Your task to perform on an android device: refresh tabs in the chrome app Image 0: 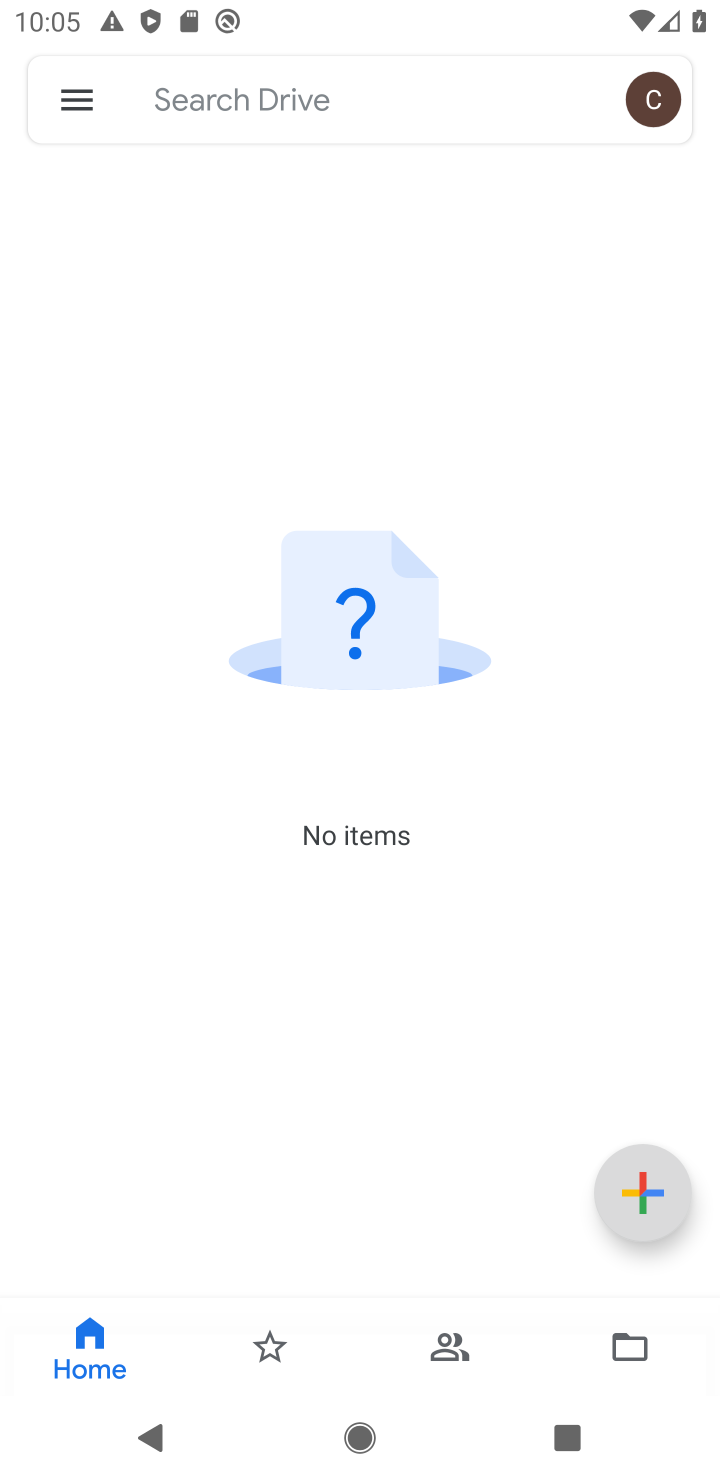
Step 0: press home button
Your task to perform on an android device: refresh tabs in the chrome app Image 1: 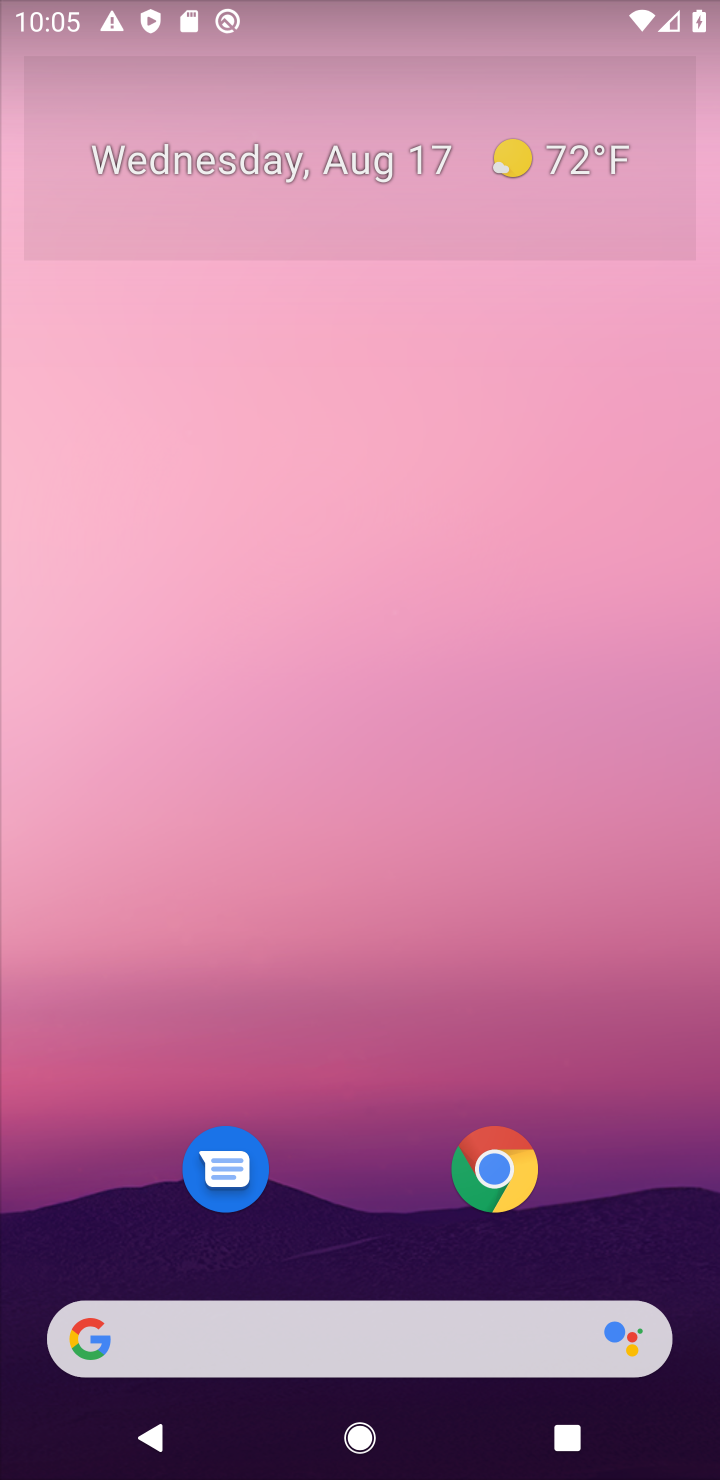
Step 1: drag from (408, 1077) to (337, 318)
Your task to perform on an android device: refresh tabs in the chrome app Image 2: 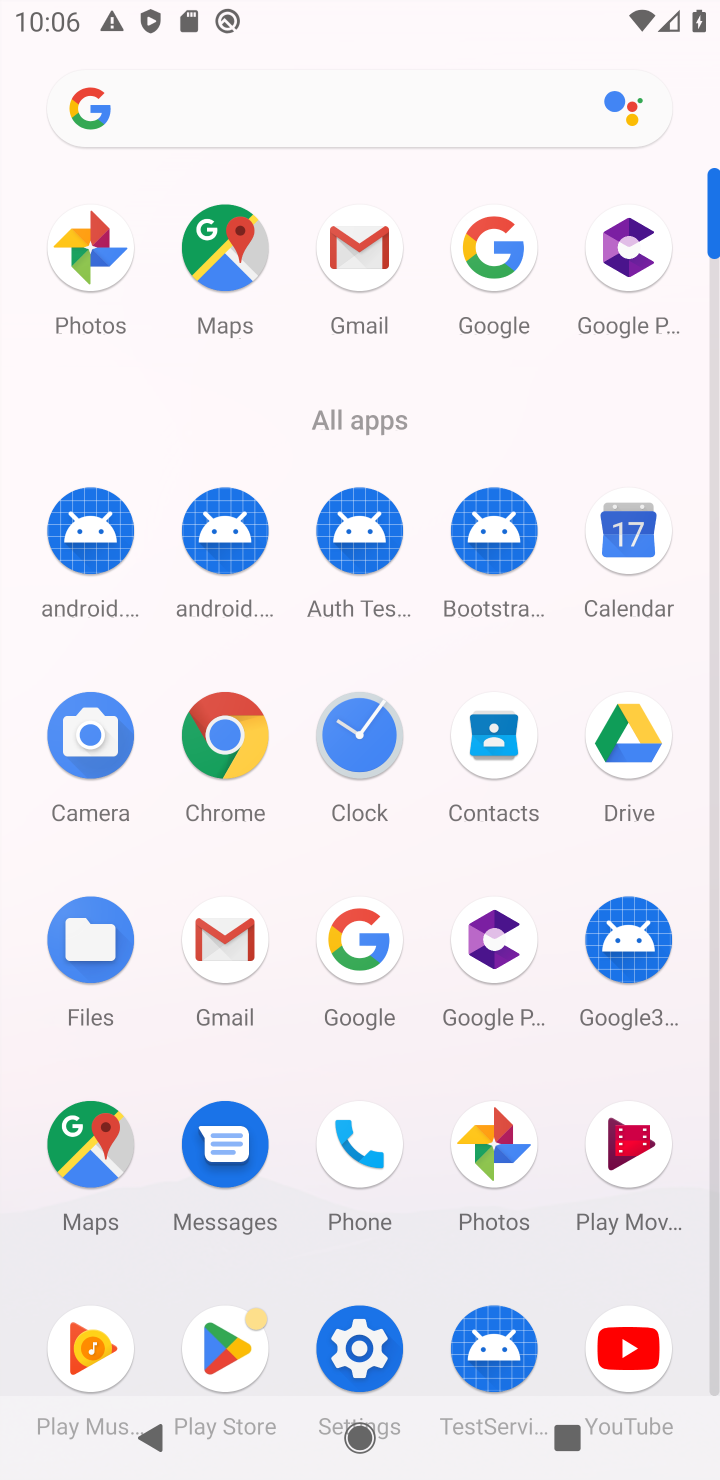
Step 2: click (257, 727)
Your task to perform on an android device: refresh tabs in the chrome app Image 3: 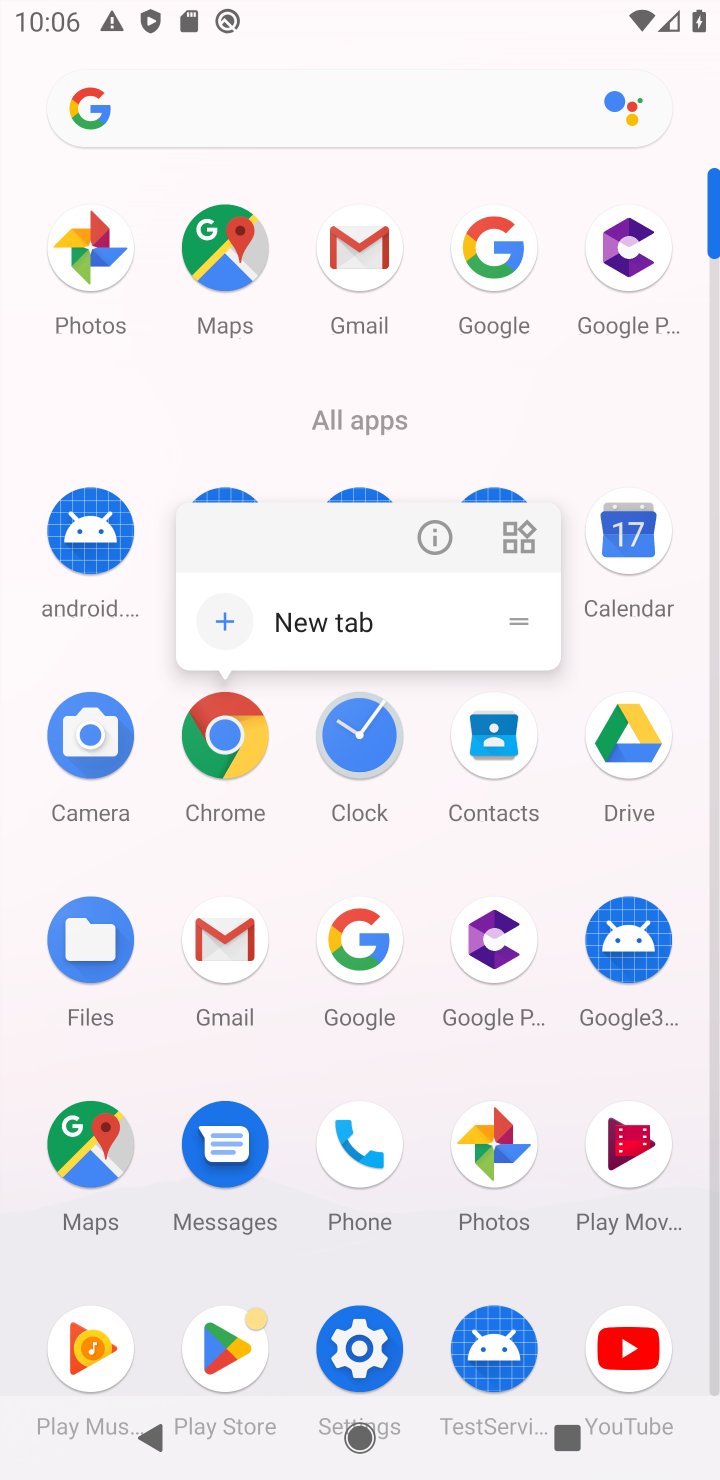
Step 3: task complete